Your task to perform on an android device: Show me productivity apps on the Play Store Image 0: 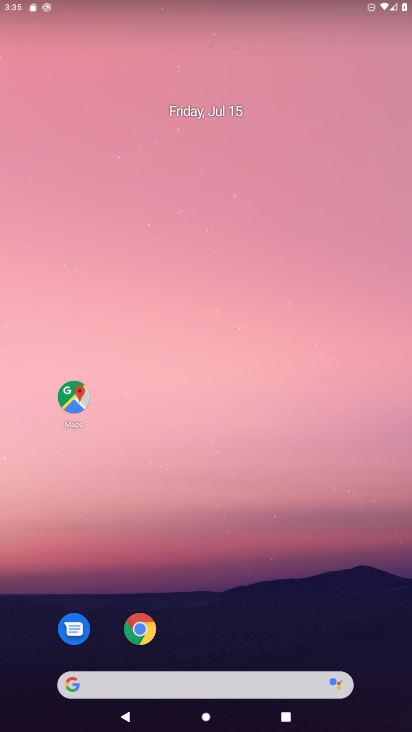
Step 0: drag from (332, 621) to (283, 110)
Your task to perform on an android device: Show me productivity apps on the Play Store Image 1: 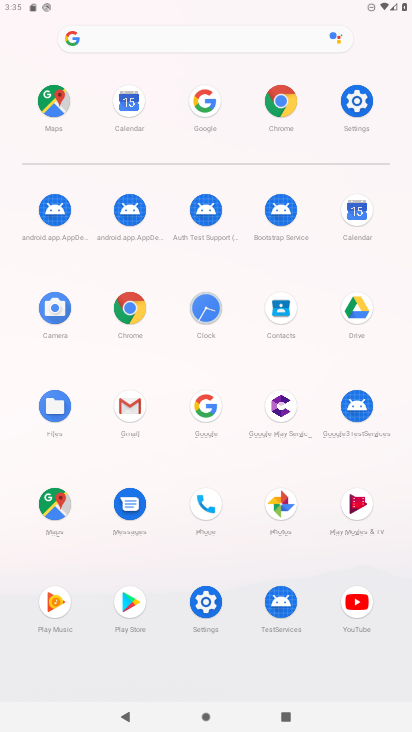
Step 1: click (136, 614)
Your task to perform on an android device: Show me productivity apps on the Play Store Image 2: 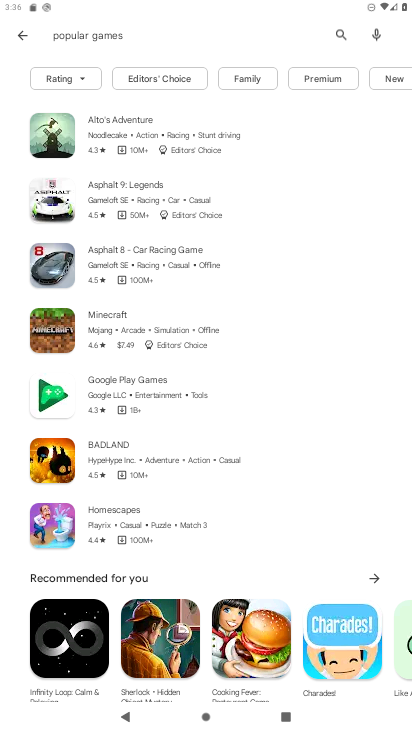
Step 2: click (5, 41)
Your task to perform on an android device: Show me productivity apps on the Play Store Image 3: 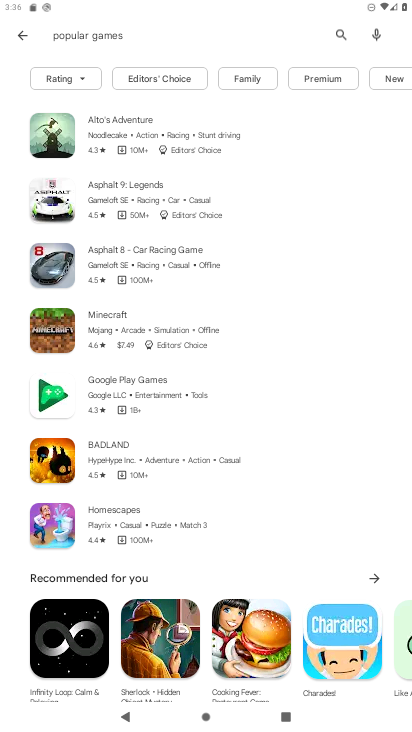
Step 3: click (25, 28)
Your task to perform on an android device: Show me productivity apps on the Play Store Image 4: 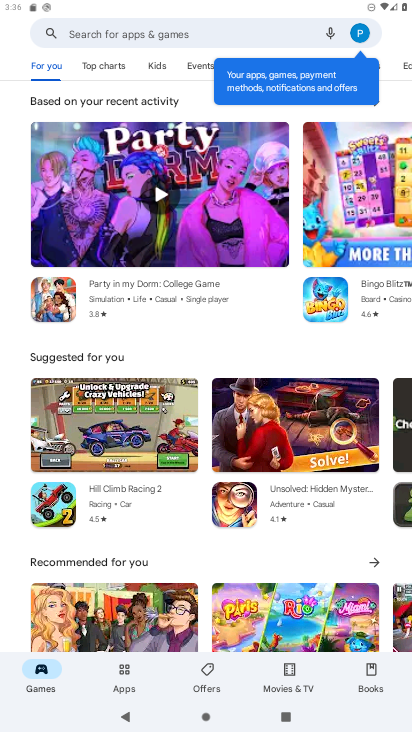
Step 4: click (165, 25)
Your task to perform on an android device: Show me productivity apps on the Play Store Image 5: 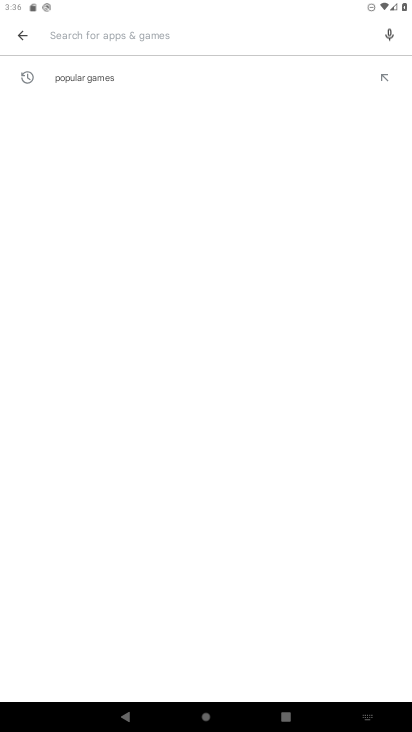
Step 5: type " productivity apps "
Your task to perform on an android device: Show me productivity apps on the Play Store Image 6: 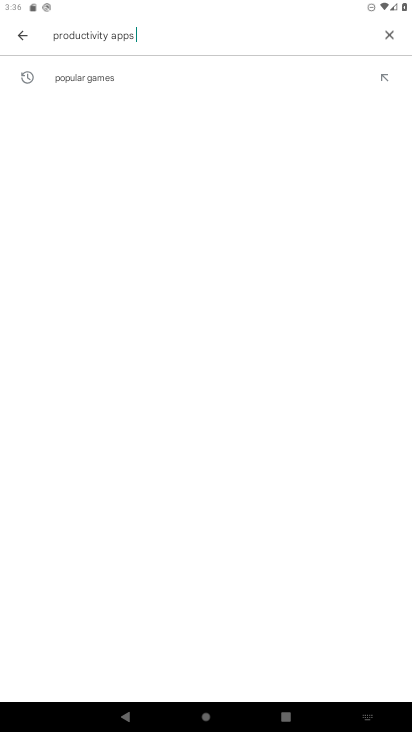
Step 6: press enter
Your task to perform on an android device: Show me productivity apps on the Play Store Image 7: 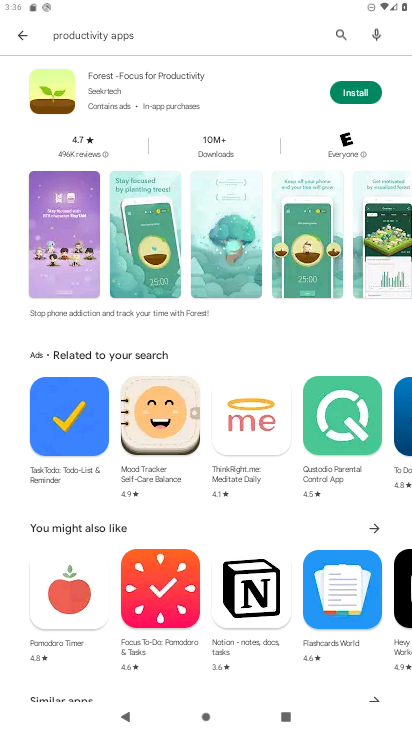
Step 7: task complete